Your task to perform on an android device: delete location history Image 0: 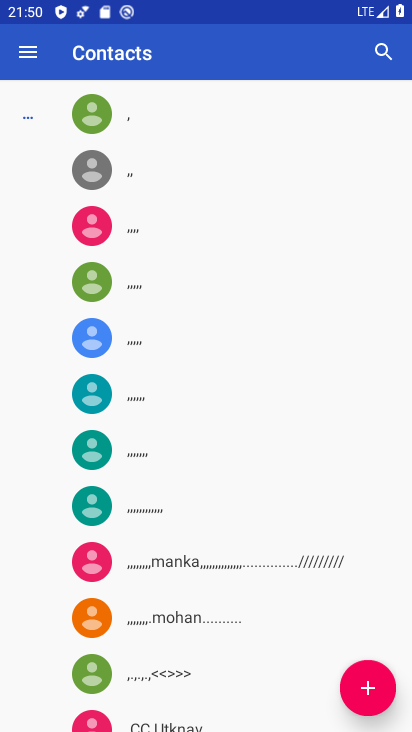
Step 0: press back button
Your task to perform on an android device: delete location history Image 1: 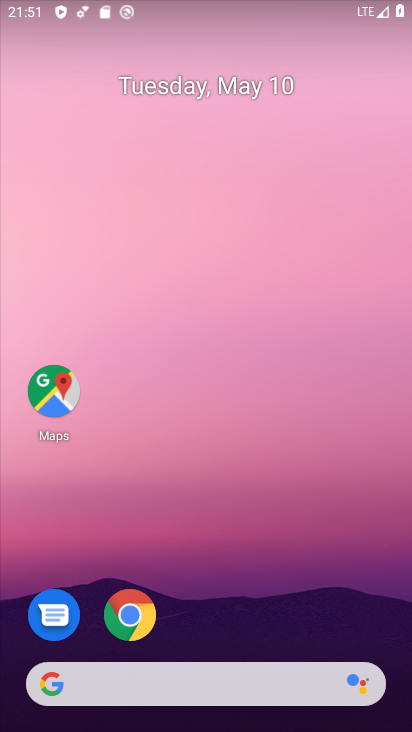
Step 1: click (47, 385)
Your task to perform on an android device: delete location history Image 2: 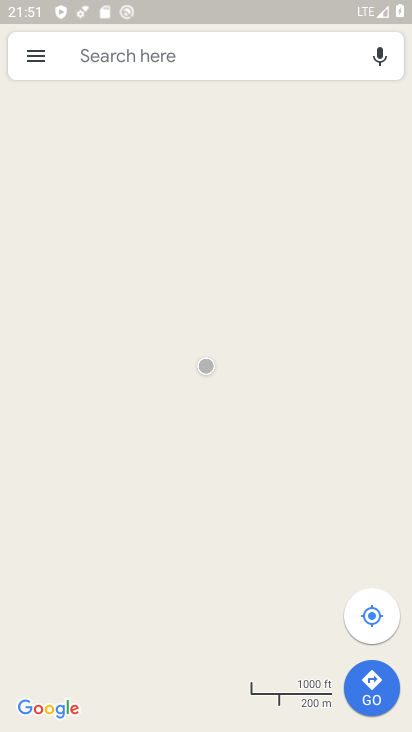
Step 2: click (33, 56)
Your task to perform on an android device: delete location history Image 3: 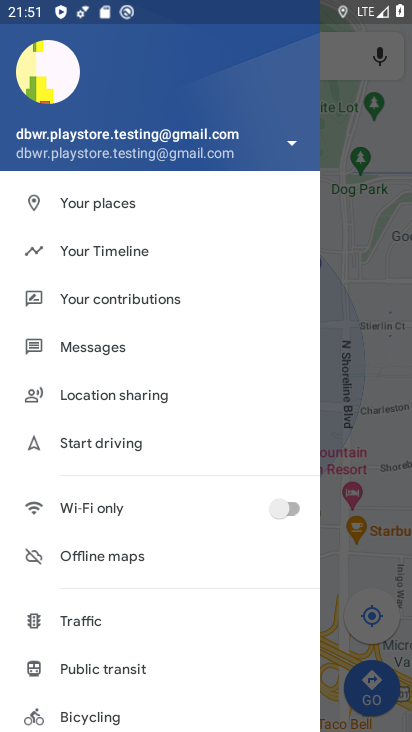
Step 3: click (152, 254)
Your task to perform on an android device: delete location history Image 4: 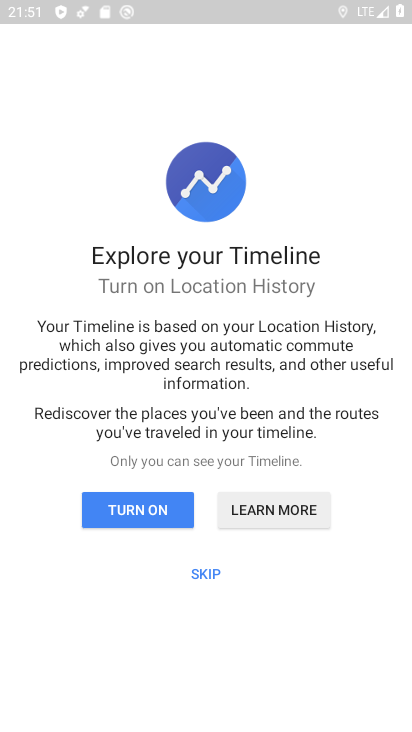
Step 4: click (215, 569)
Your task to perform on an android device: delete location history Image 5: 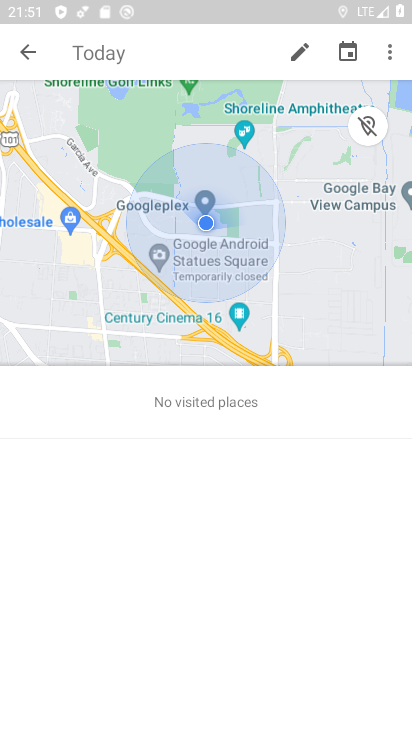
Step 5: click (386, 51)
Your task to perform on an android device: delete location history Image 6: 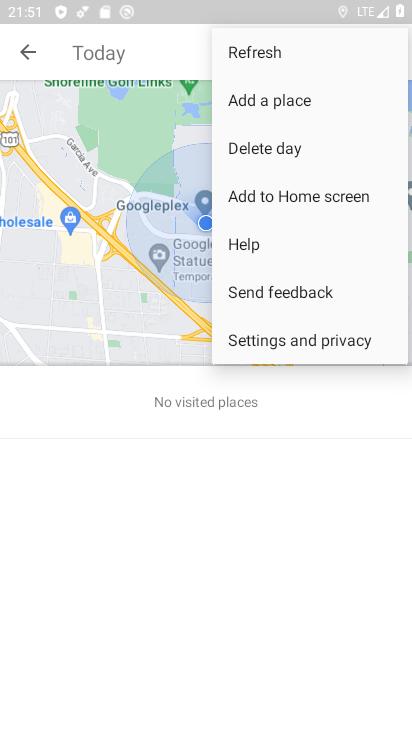
Step 6: click (307, 349)
Your task to perform on an android device: delete location history Image 7: 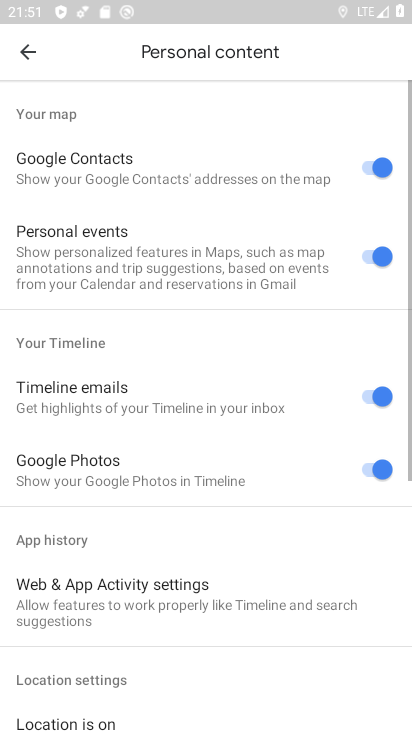
Step 7: drag from (167, 636) to (282, 155)
Your task to perform on an android device: delete location history Image 8: 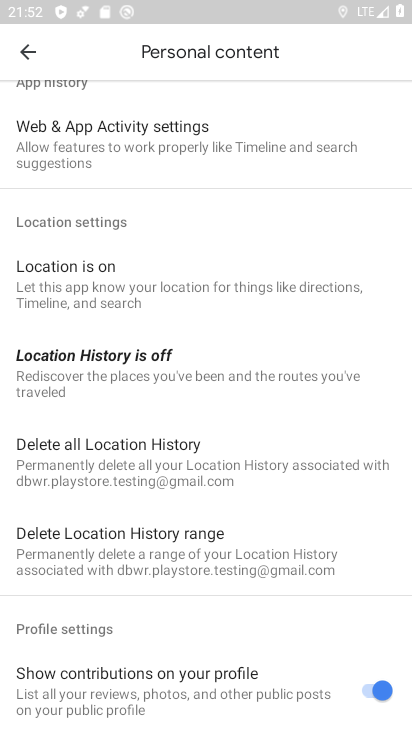
Step 8: click (125, 464)
Your task to perform on an android device: delete location history Image 9: 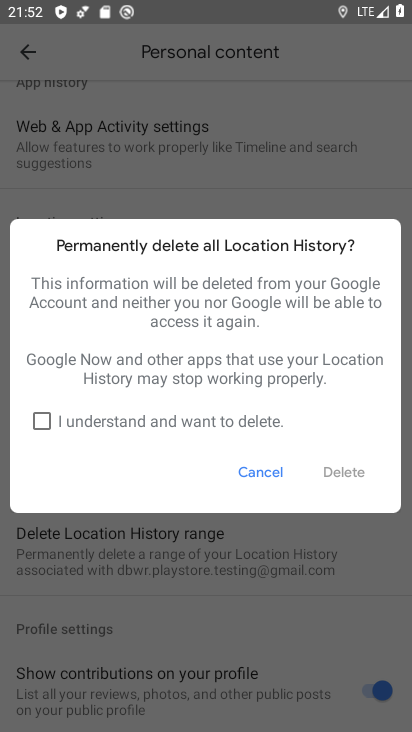
Step 9: click (61, 433)
Your task to perform on an android device: delete location history Image 10: 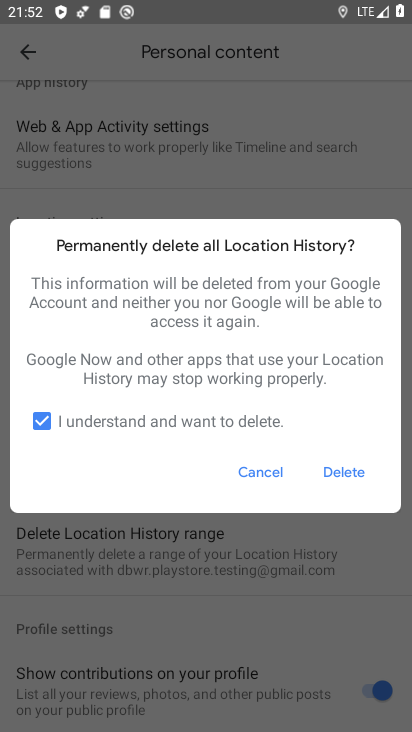
Step 10: click (345, 472)
Your task to perform on an android device: delete location history Image 11: 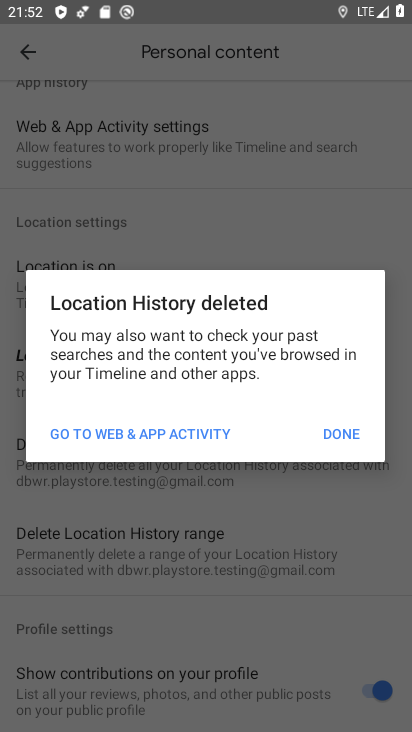
Step 11: click (354, 430)
Your task to perform on an android device: delete location history Image 12: 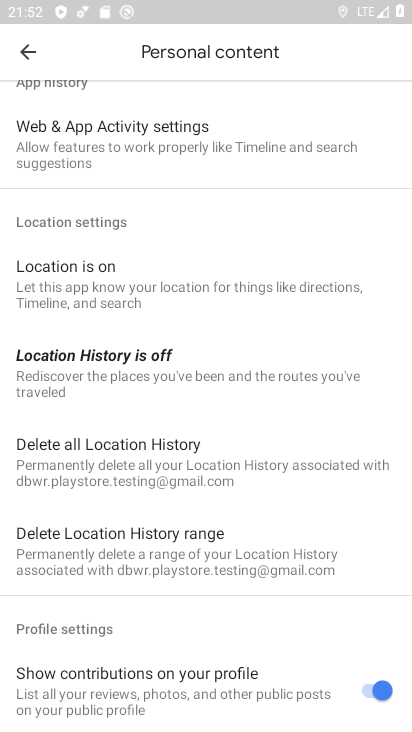
Step 12: task complete